Your task to perform on an android device: turn off data saver in the chrome app Image 0: 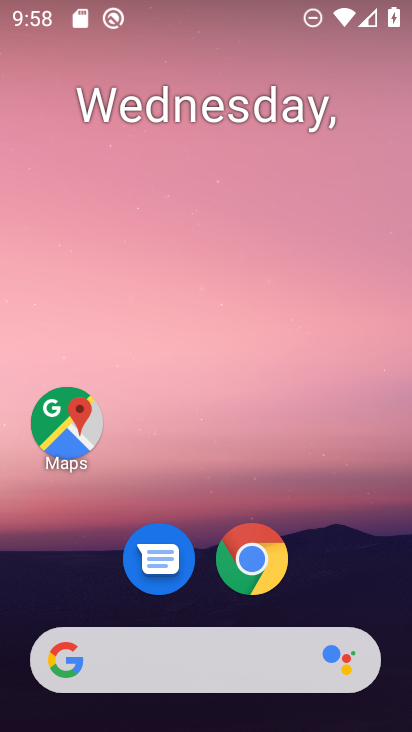
Step 0: type ""
Your task to perform on an android device: turn off data saver in the chrome app Image 1: 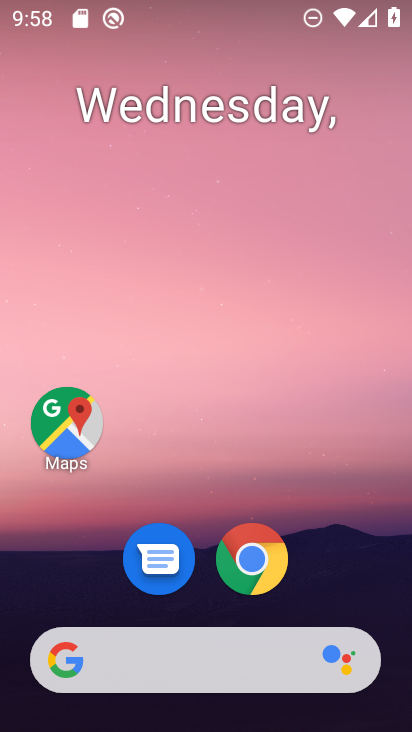
Step 1: drag from (392, 576) to (385, 87)
Your task to perform on an android device: turn off data saver in the chrome app Image 2: 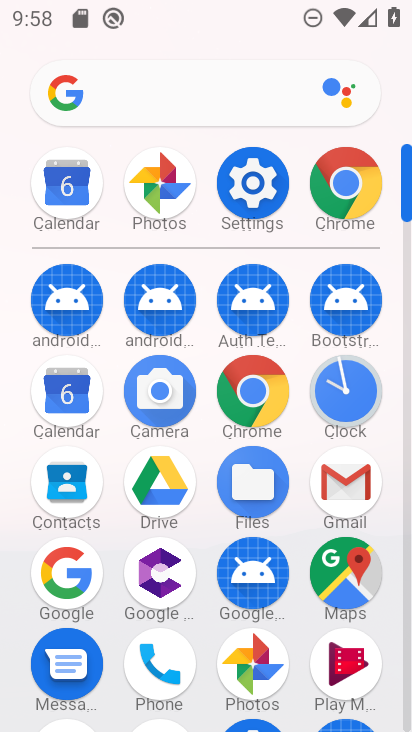
Step 2: click (347, 186)
Your task to perform on an android device: turn off data saver in the chrome app Image 3: 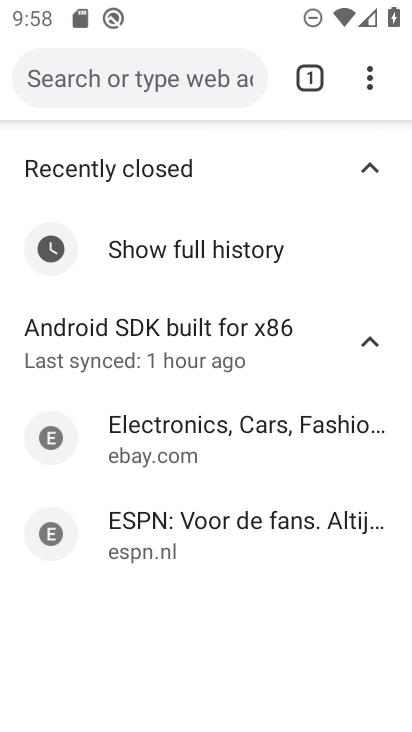
Step 3: click (373, 89)
Your task to perform on an android device: turn off data saver in the chrome app Image 4: 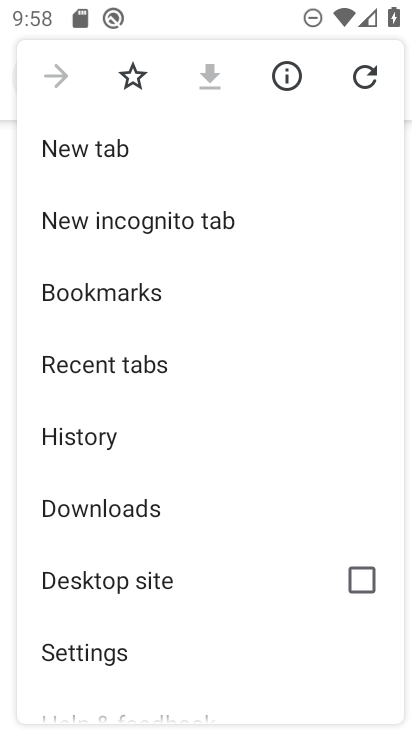
Step 4: click (135, 658)
Your task to perform on an android device: turn off data saver in the chrome app Image 5: 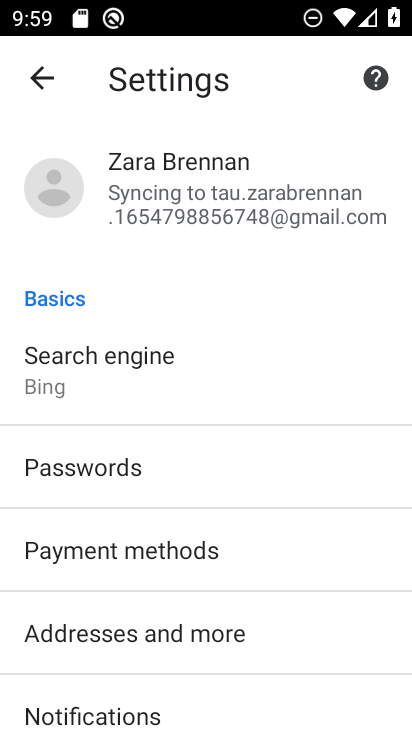
Step 5: drag from (354, 598) to (341, 490)
Your task to perform on an android device: turn off data saver in the chrome app Image 6: 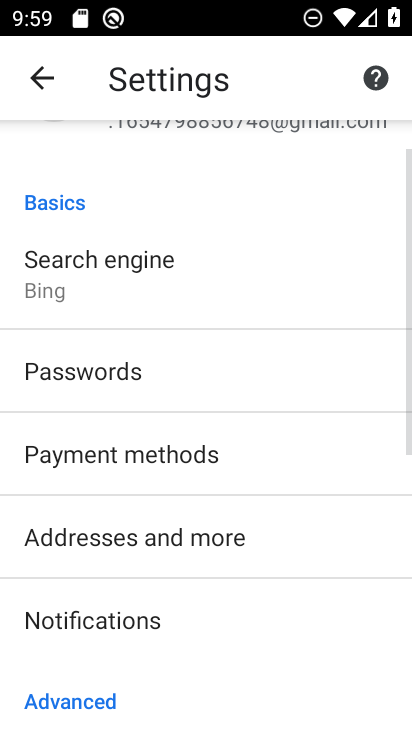
Step 6: drag from (328, 585) to (329, 485)
Your task to perform on an android device: turn off data saver in the chrome app Image 7: 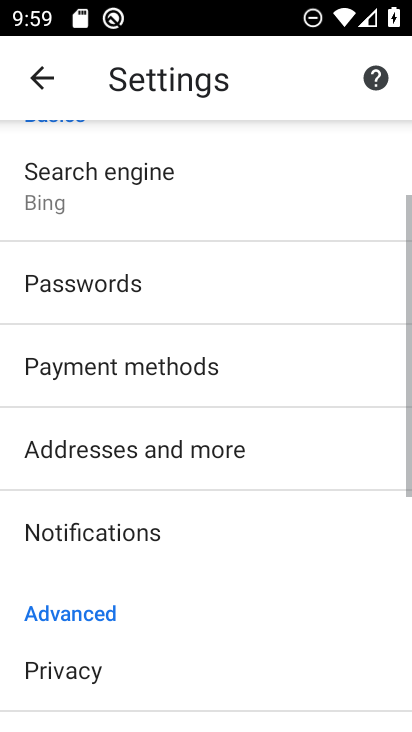
Step 7: drag from (324, 582) to (342, 465)
Your task to perform on an android device: turn off data saver in the chrome app Image 8: 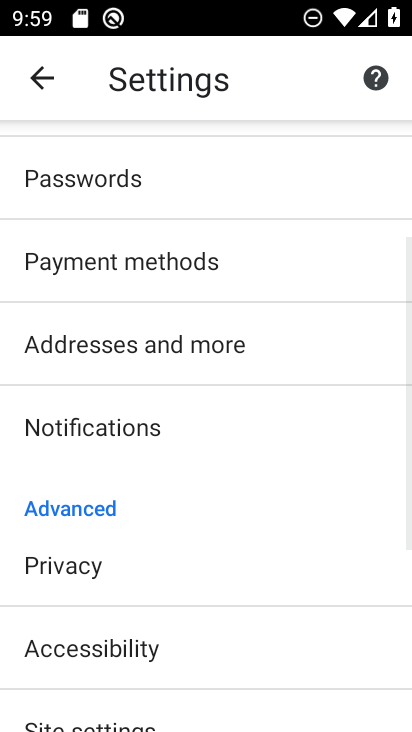
Step 8: drag from (344, 598) to (350, 451)
Your task to perform on an android device: turn off data saver in the chrome app Image 9: 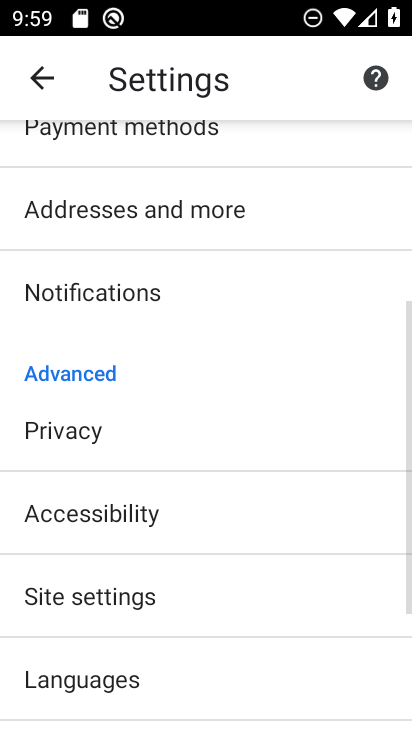
Step 9: drag from (322, 575) to (324, 442)
Your task to perform on an android device: turn off data saver in the chrome app Image 10: 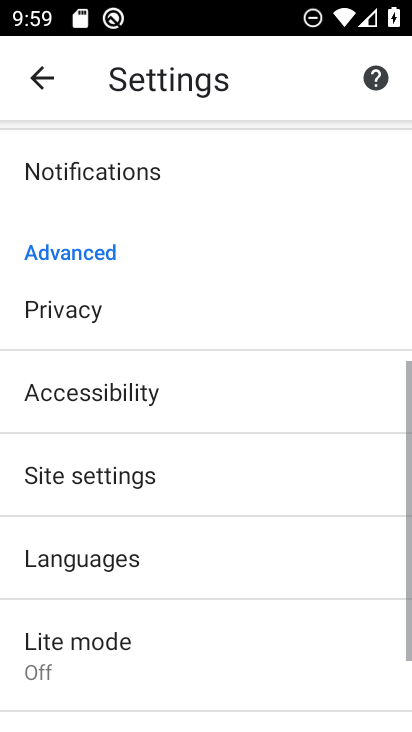
Step 10: drag from (306, 617) to (322, 459)
Your task to perform on an android device: turn off data saver in the chrome app Image 11: 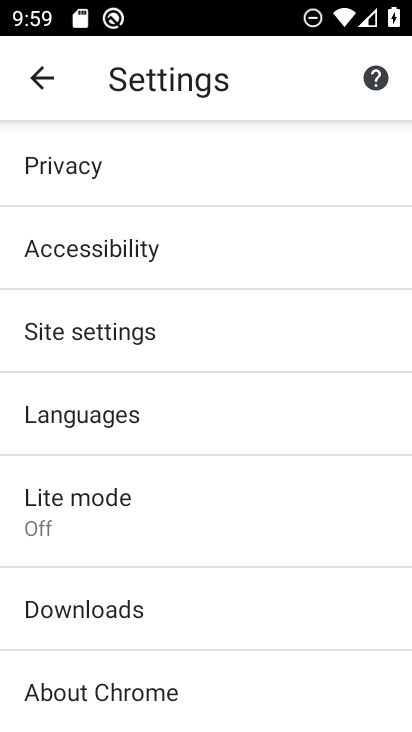
Step 11: click (256, 535)
Your task to perform on an android device: turn off data saver in the chrome app Image 12: 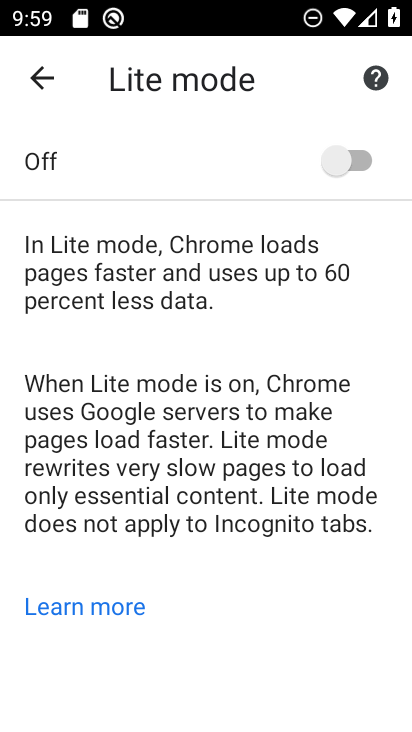
Step 12: task complete